Your task to perform on an android device: Open calendar and show me the third week of next month Image 0: 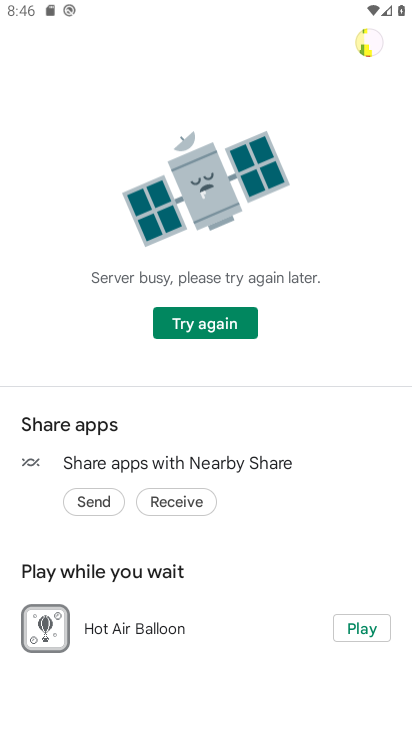
Step 0: press home button
Your task to perform on an android device: Open calendar and show me the third week of next month Image 1: 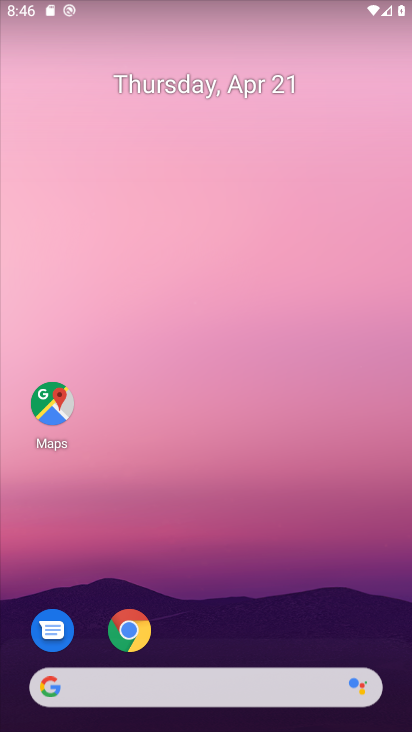
Step 1: drag from (264, 402) to (296, 86)
Your task to perform on an android device: Open calendar and show me the third week of next month Image 2: 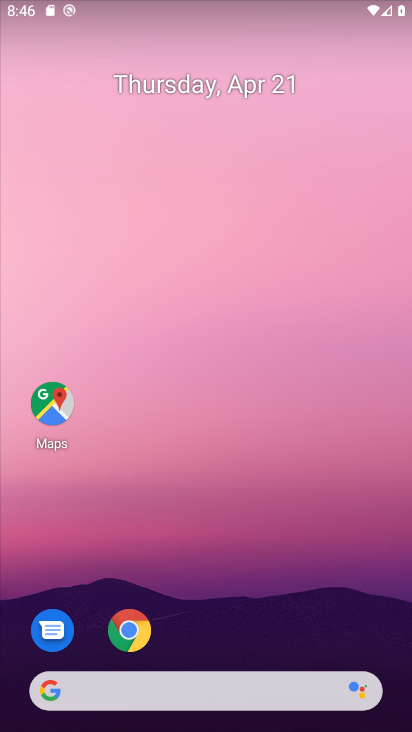
Step 2: drag from (205, 609) to (250, 1)
Your task to perform on an android device: Open calendar and show me the third week of next month Image 3: 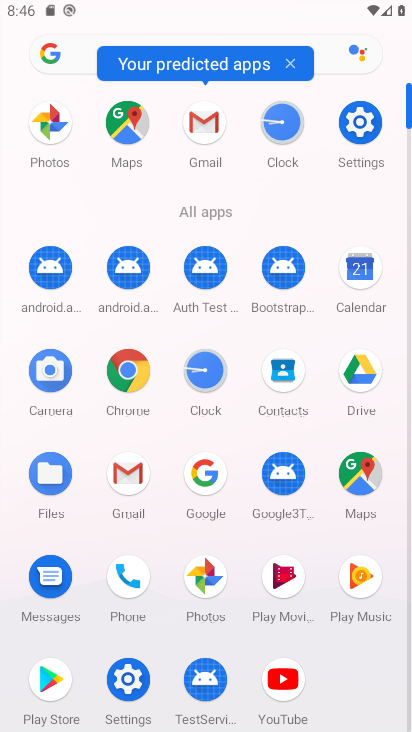
Step 3: click (373, 281)
Your task to perform on an android device: Open calendar and show me the third week of next month Image 4: 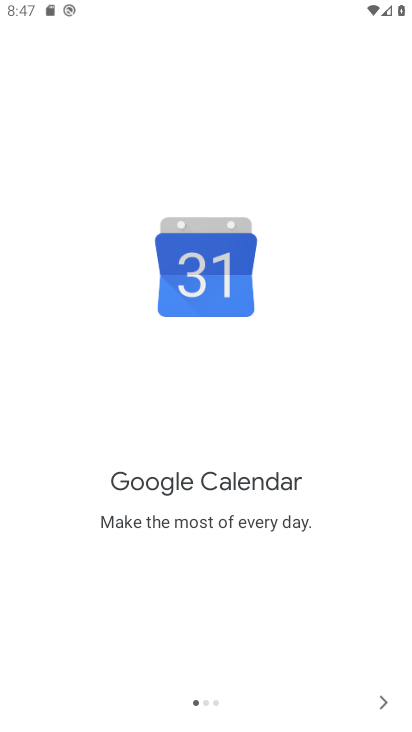
Step 4: click (384, 701)
Your task to perform on an android device: Open calendar and show me the third week of next month Image 5: 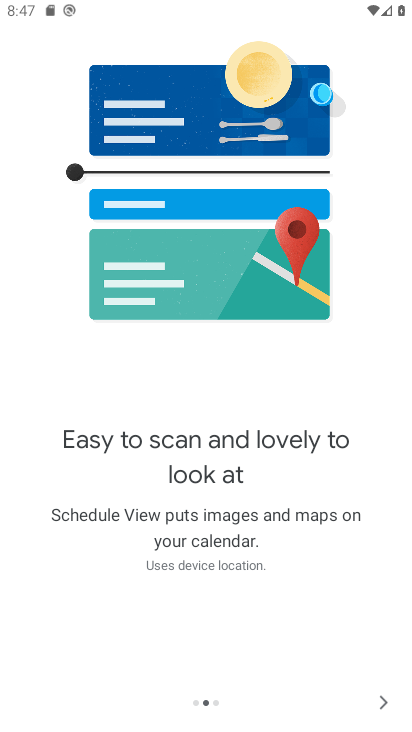
Step 5: click (377, 684)
Your task to perform on an android device: Open calendar and show me the third week of next month Image 6: 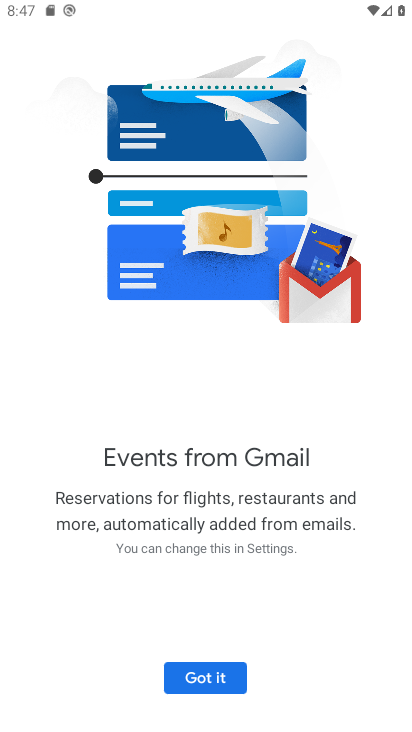
Step 6: click (212, 683)
Your task to perform on an android device: Open calendar and show me the third week of next month Image 7: 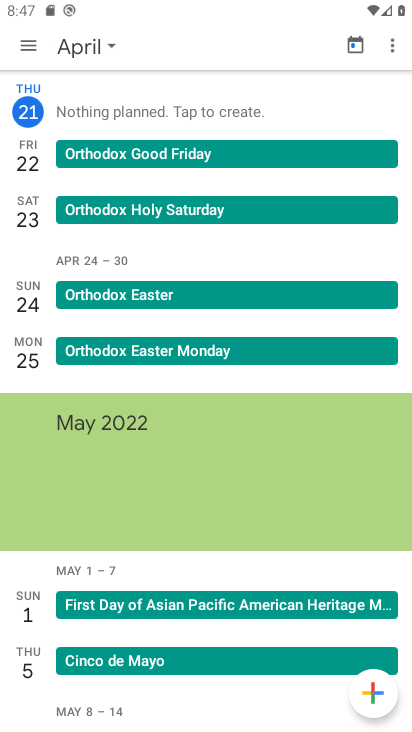
Step 7: click (33, 39)
Your task to perform on an android device: Open calendar and show me the third week of next month Image 8: 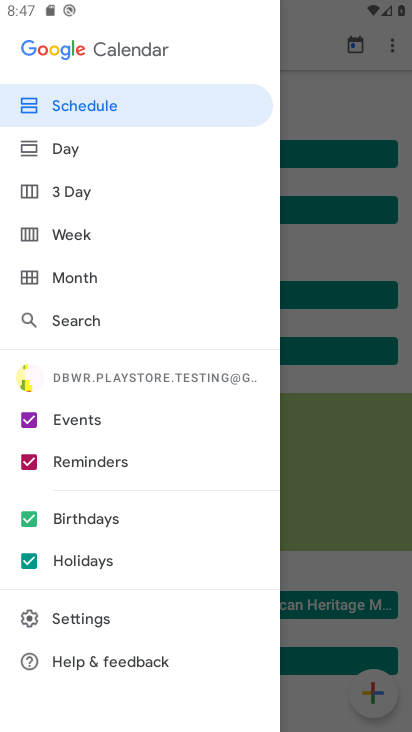
Step 8: click (73, 239)
Your task to perform on an android device: Open calendar and show me the third week of next month Image 9: 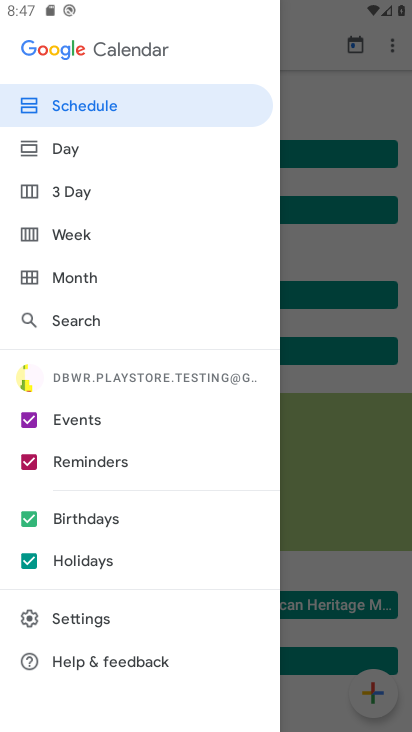
Step 9: click (73, 239)
Your task to perform on an android device: Open calendar and show me the third week of next month Image 10: 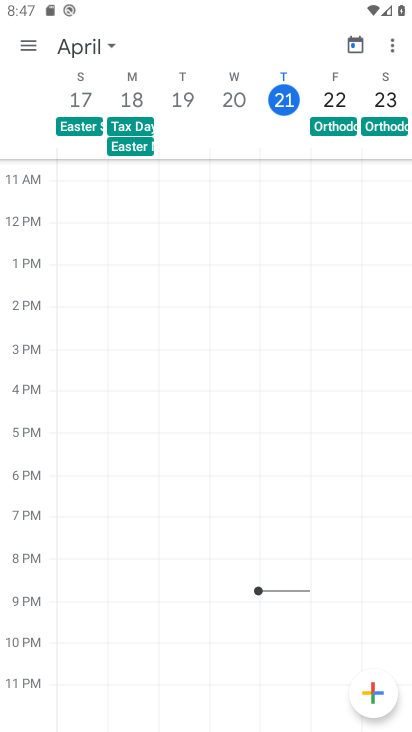
Step 10: click (97, 40)
Your task to perform on an android device: Open calendar and show me the third week of next month Image 11: 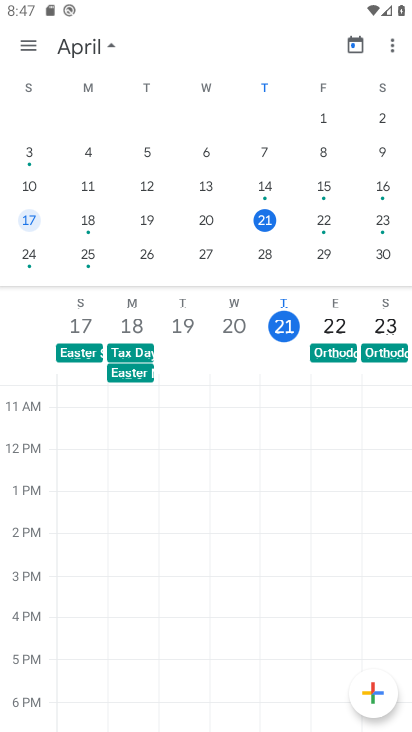
Step 11: drag from (349, 207) to (13, 128)
Your task to perform on an android device: Open calendar and show me the third week of next month Image 12: 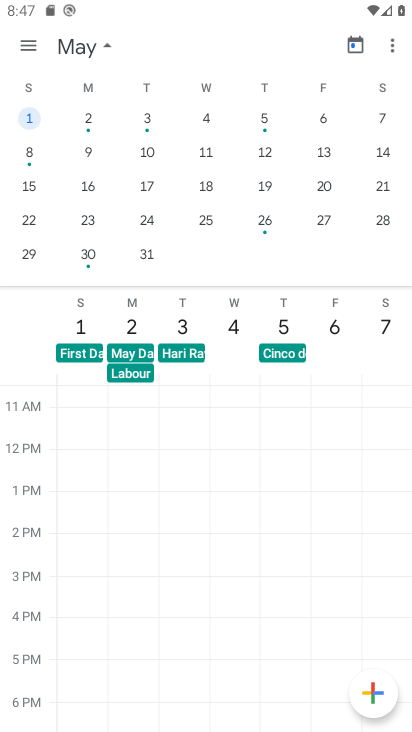
Step 12: click (33, 46)
Your task to perform on an android device: Open calendar and show me the third week of next month Image 13: 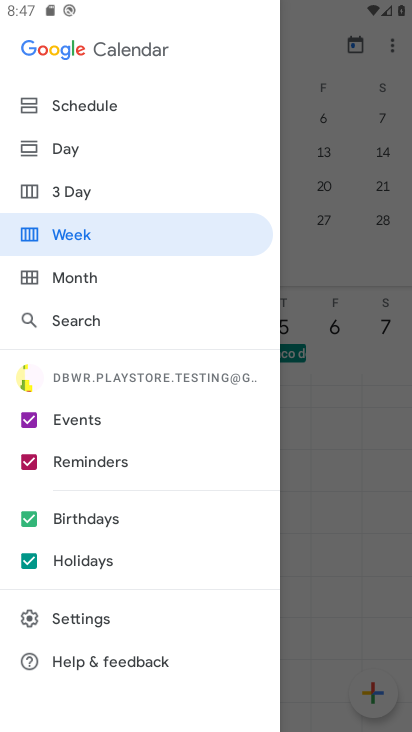
Step 13: click (91, 231)
Your task to perform on an android device: Open calendar and show me the third week of next month Image 14: 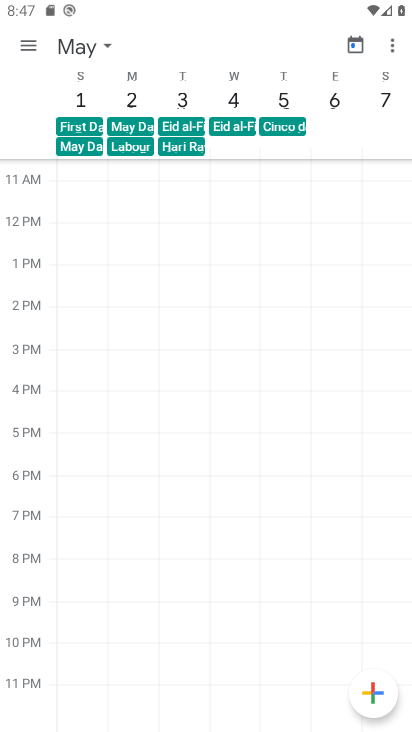
Step 14: task complete